Your task to perform on an android device: Open display settings Image 0: 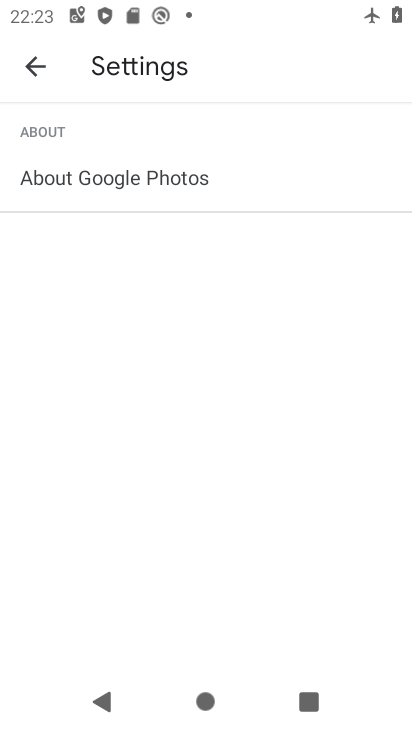
Step 0: press home button
Your task to perform on an android device: Open display settings Image 1: 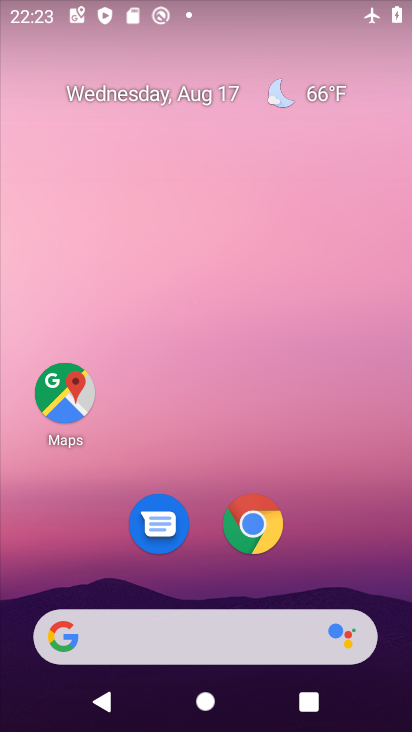
Step 1: drag from (323, 534) to (334, 1)
Your task to perform on an android device: Open display settings Image 2: 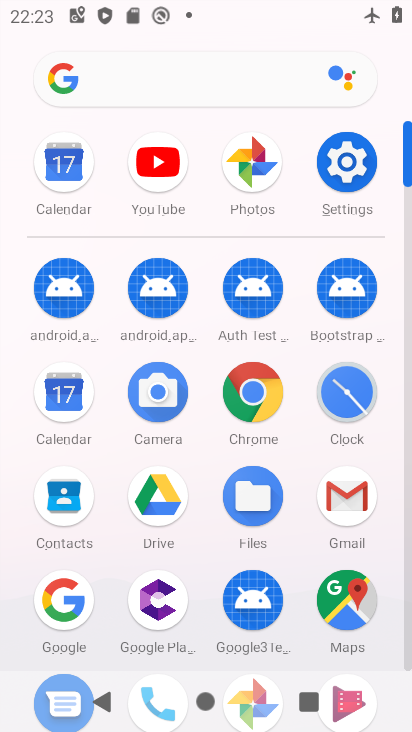
Step 2: click (345, 164)
Your task to perform on an android device: Open display settings Image 3: 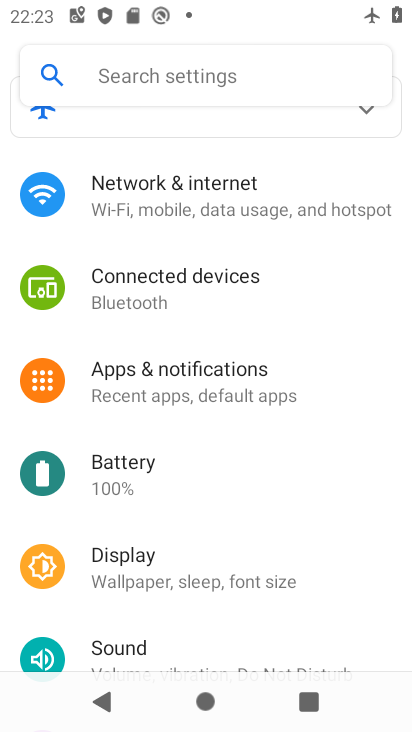
Step 3: click (163, 562)
Your task to perform on an android device: Open display settings Image 4: 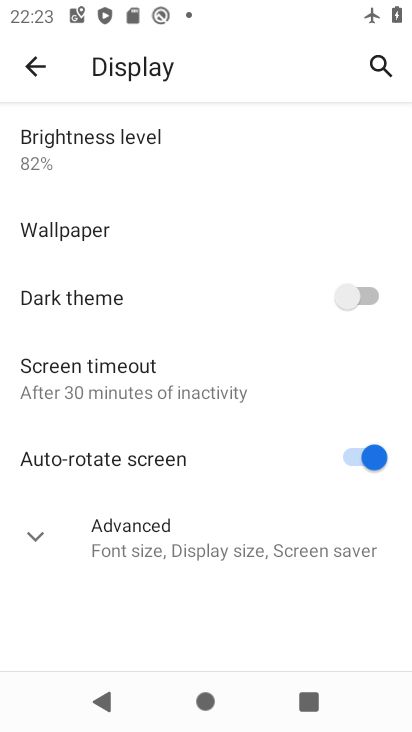
Step 4: click (35, 532)
Your task to perform on an android device: Open display settings Image 5: 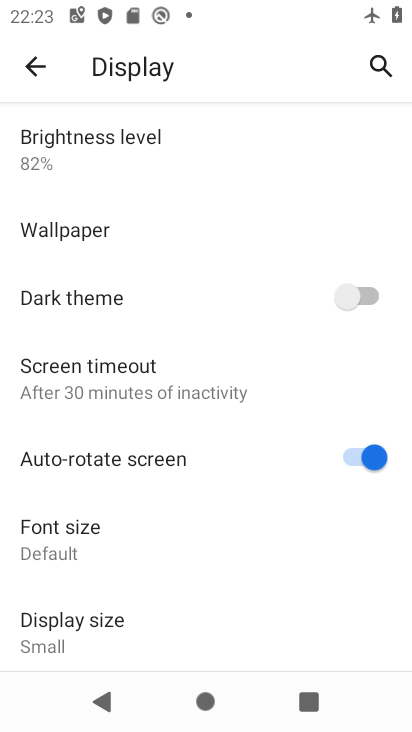
Step 5: task complete